Your task to perform on an android device: Go to calendar. Show me events next week Image 0: 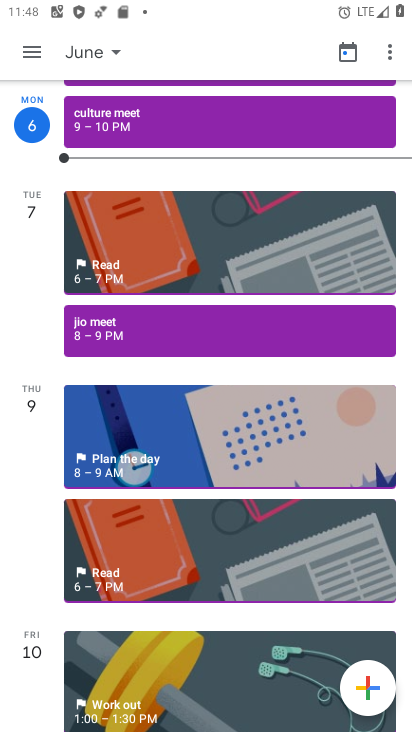
Step 0: press home button
Your task to perform on an android device: Go to calendar. Show me events next week Image 1: 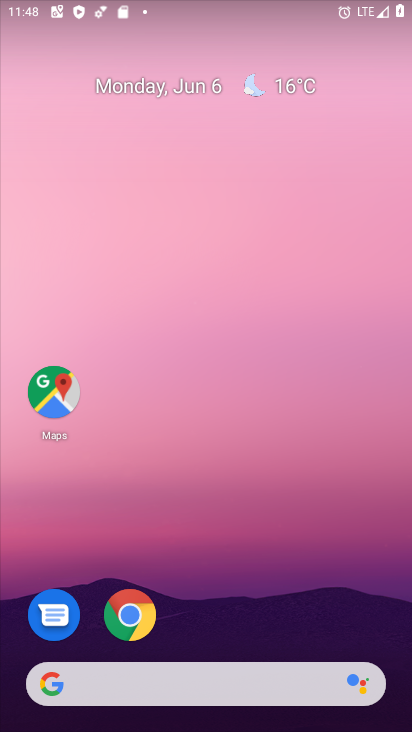
Step 1: drag from (220, 628) to (243, 137)
Your task to perform on an android device: Go to calendar. Show me events next week Image 2: 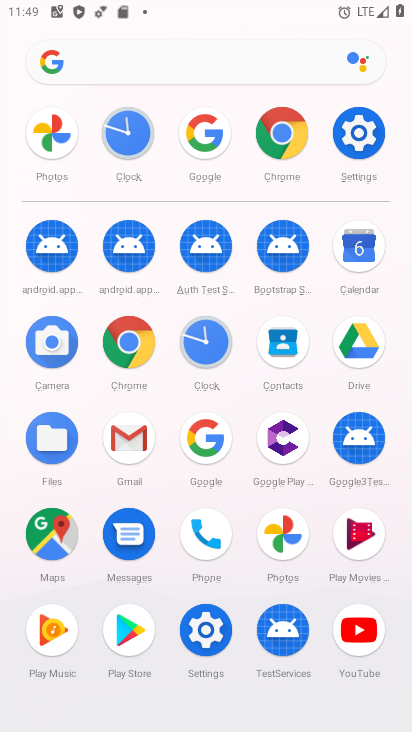
Step 2: click (354, 242)
Your task to perform on an android device: Go to calendar. Show me events next week Image 3: 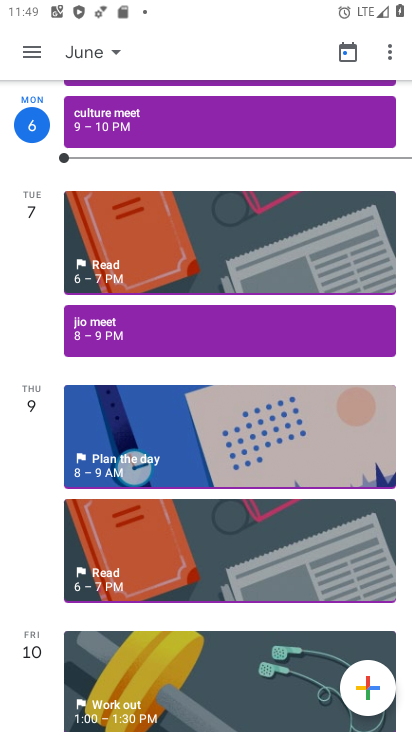
Step 3: click (108, 50)
Your task to perform on an android device: Go to calendar. Show me events next week Image 4: 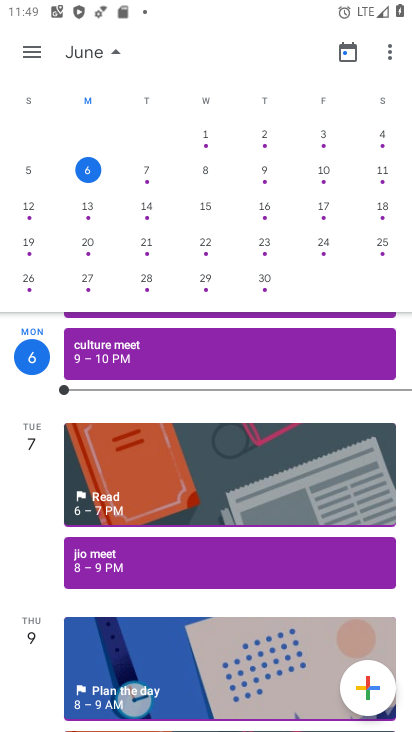
Step 4: click (29, 209)
Your task to perform on an android device: Go to calendar. Show me events next week Image 5: 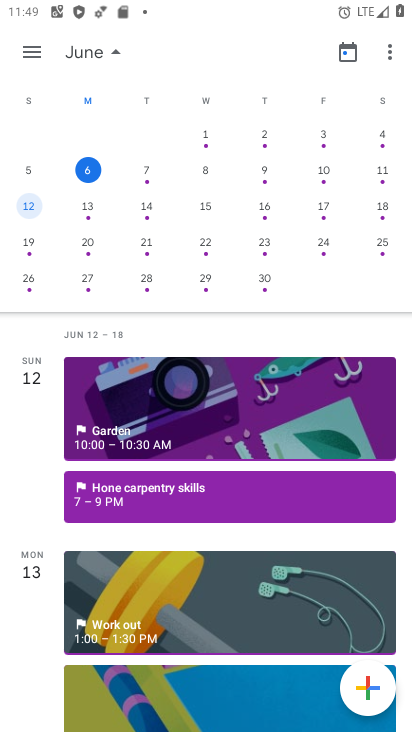
Step 5: click (112, 49)
Your task to perform on an android device: Go to calendar. Show me events next week Image 6: 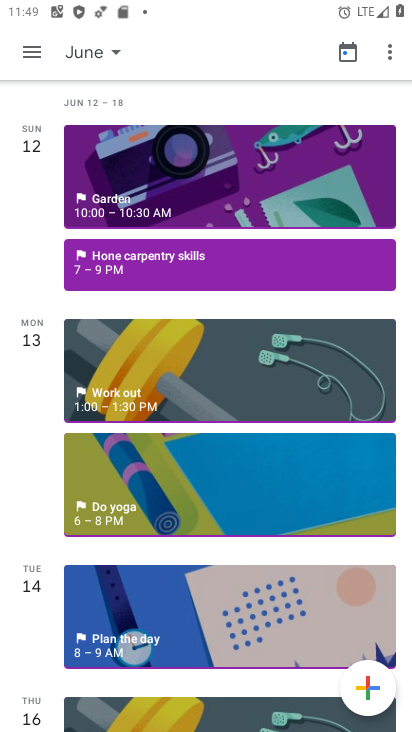
Step 6: click (15, 48)
Your task to perform on an android device: Go to calendar. Show me events next week Image 7: 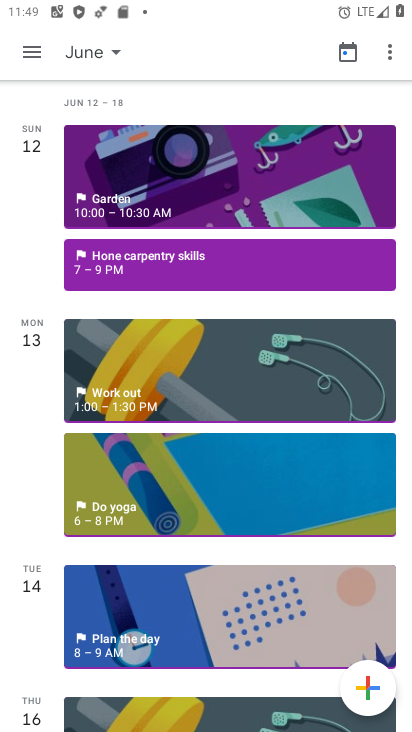
Step 7: click (36, 49)
Your task to perform on an android device: Go to calendar. Show me events next week Image 8: 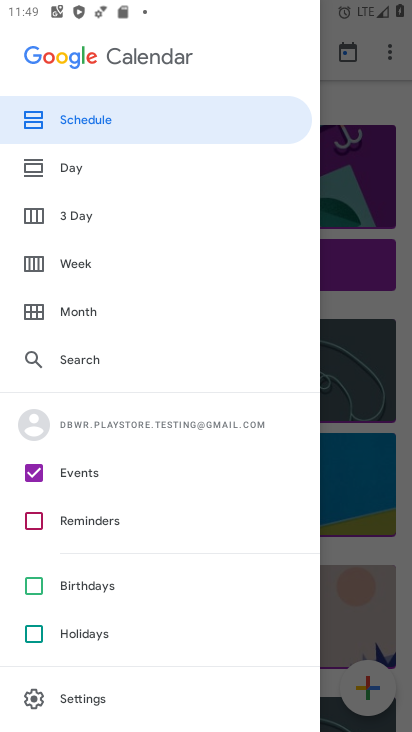
Step 8: click (65, 123)
Your task to perform on an android device: Go to calendar. Show me events next week Image 9: 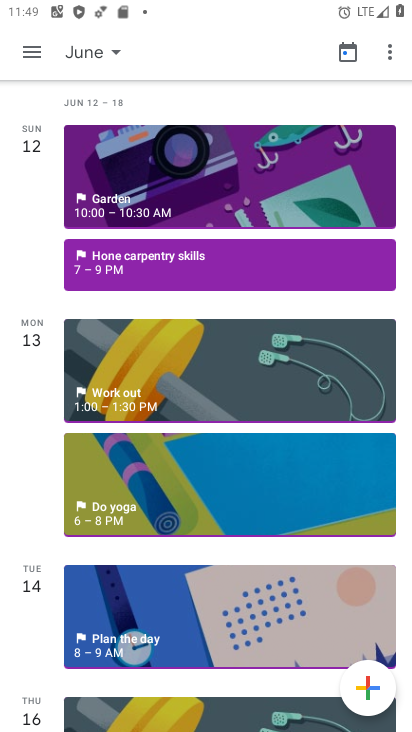
Step 9: task complete